Your task to perform on an android device: What is the recent news? Image 0: 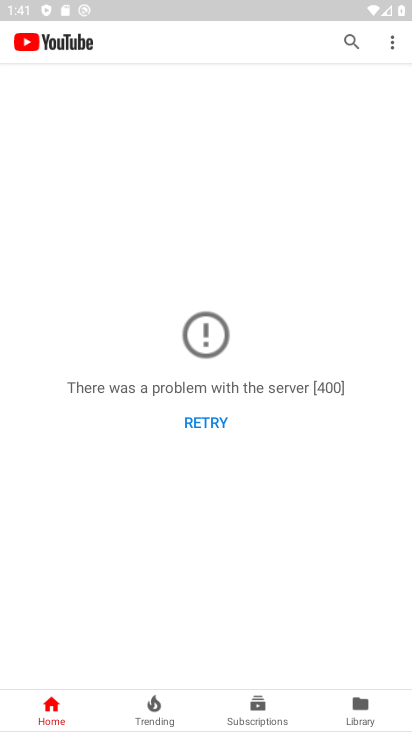
Step 0: press home button
Your task to perform on an android device: What is the recent news? Image 1: 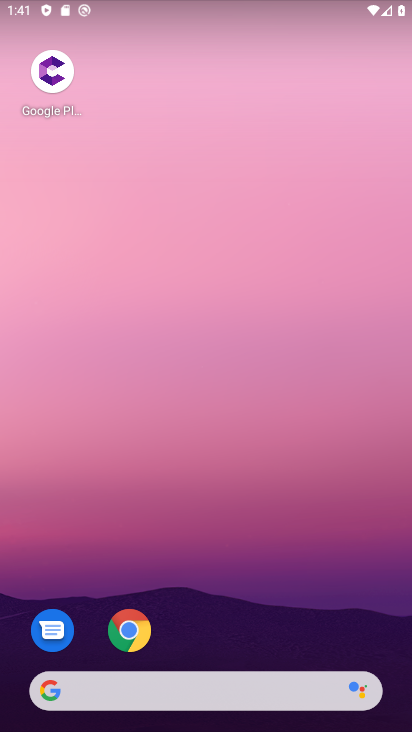
Step 1: click (174, 694)
Your task to perform on an android device: What is the recent news? Image 2: 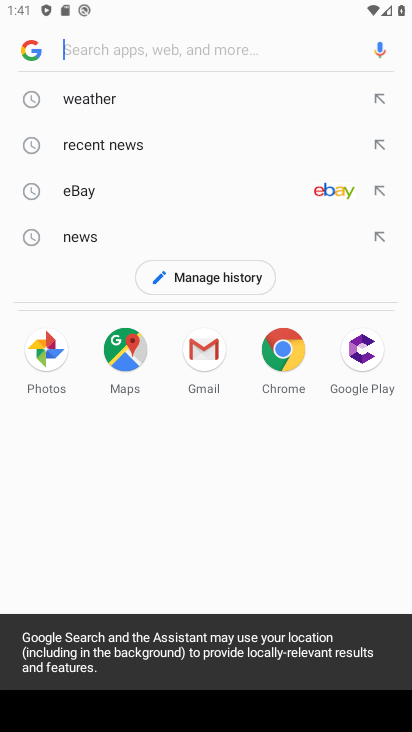
Step 2: click (175, 139)
Your task to perform on an android device: What is the recent news? Image 3: 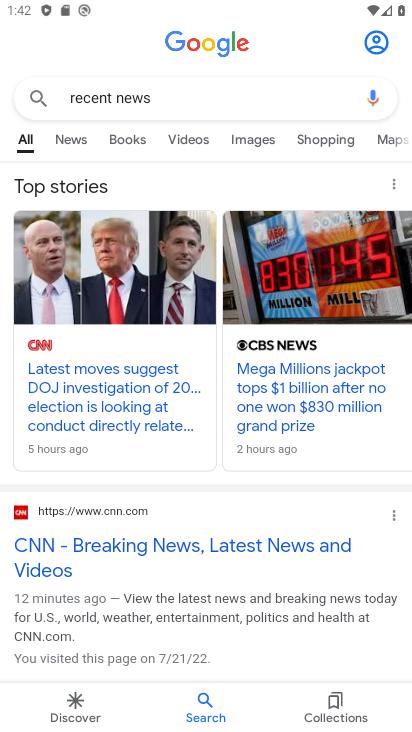
Step 3: task complete